Your task to perform on an android device: change the clock display to analog Image 0: 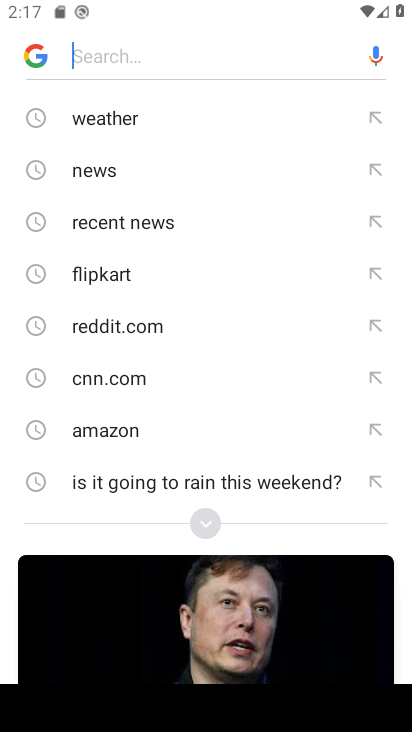
Step 0: drag from (216, 576) to (384, 6)
Your task to perform on an android device: change the clock display to analog Image 1: 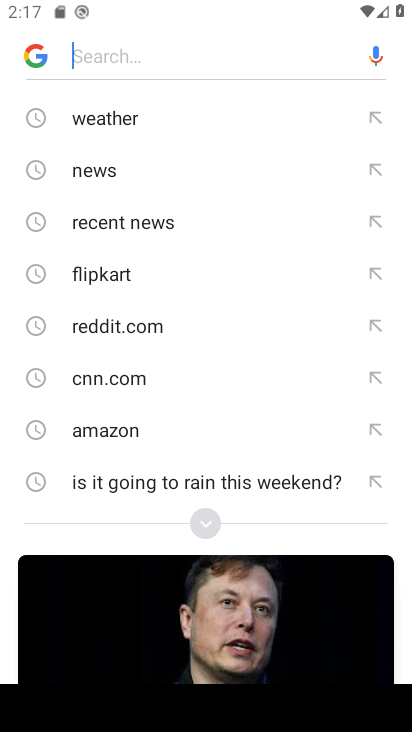
Step 1: press home button
Your task to perform on an android device: change the clock display to analog Image 2: 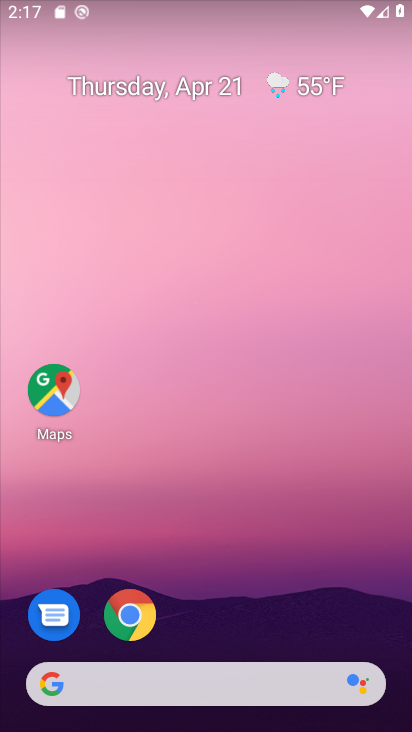
Step 2: click (206, 374)
Your task to perform on an android device: change the clock display to analog Image 3: 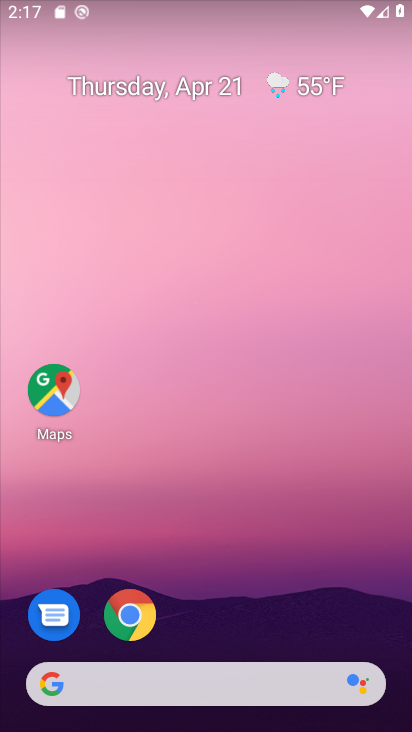
Step 3: drag from (201, 512) to (271, 100)
Your task to perform on an android device: change the clock display to analog Image 4: 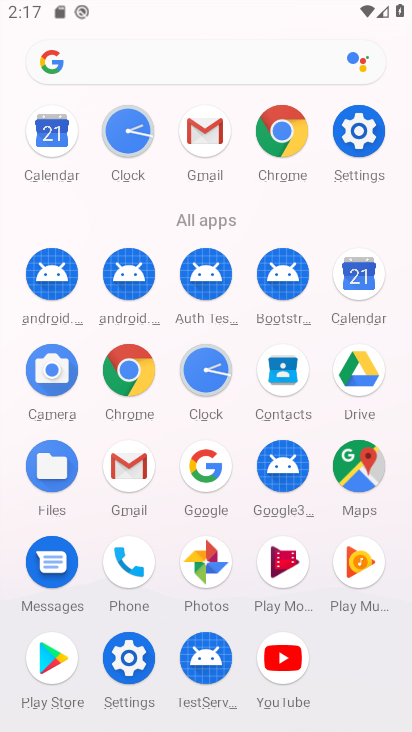
Step 4: click (390, 71)
Your task to perform on an android device: change the clock display to analog Image 5: 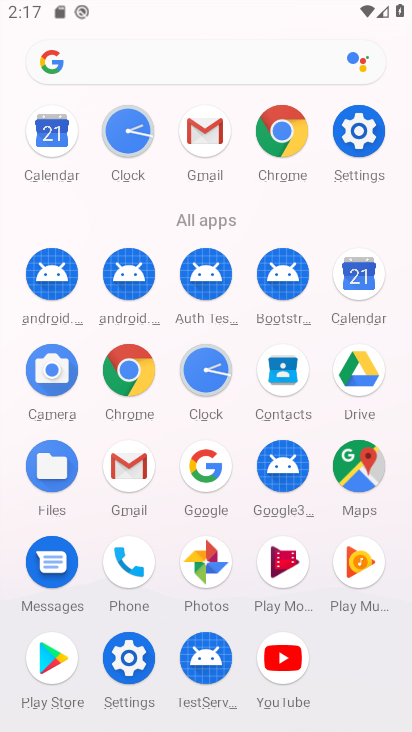
Step 5: click (203, 370)
Your task to perform on an android device: change the clock display to analog Image 6: 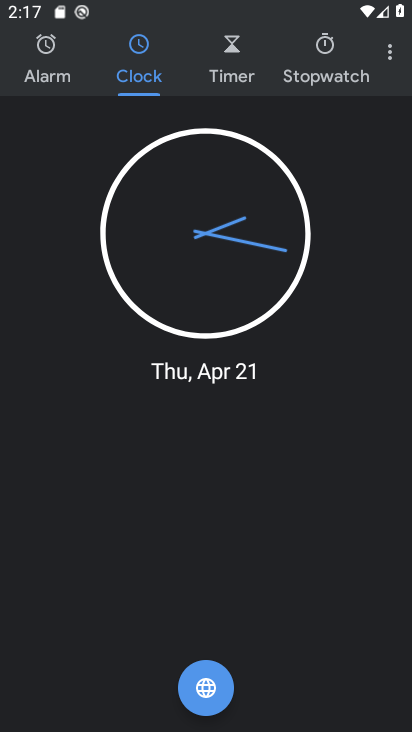
Step 6: click (286, 105)
Your task to perform on an android device: change the clock display to analog Image 7: 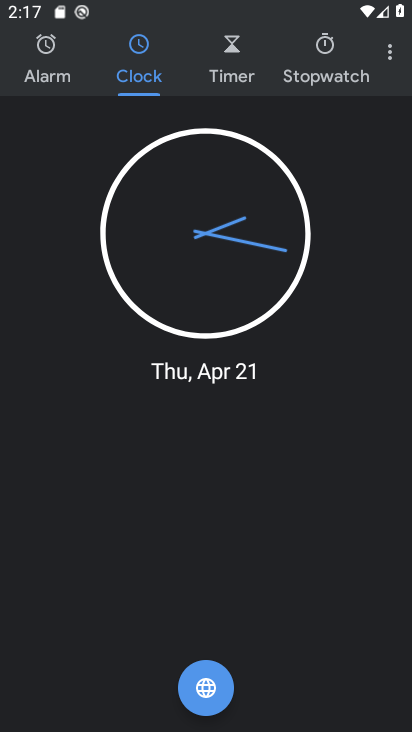
Step 7: click (387, 68)
Your task to perform on an android device: change the clock display to analog Image 8: 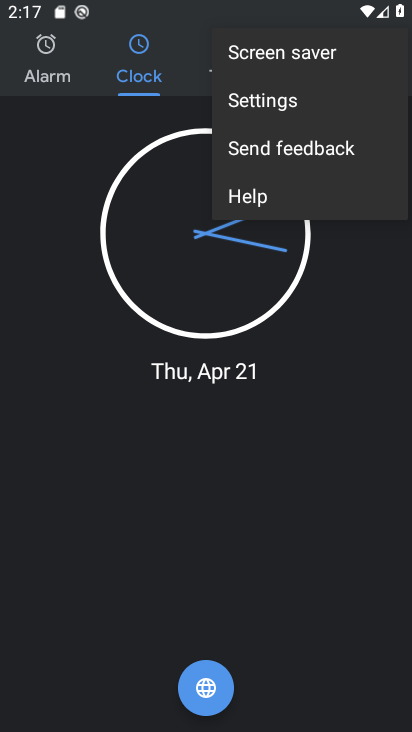
Step 8: click (151, 174)
Your task to perform on an android device: change the clock display to analog Image 9: 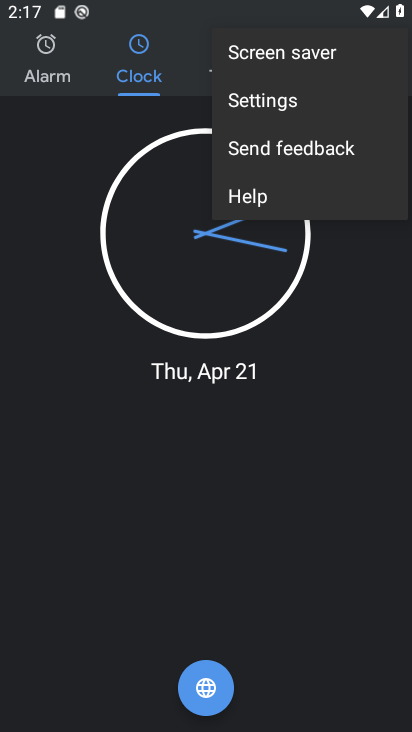
Step 9: click (269, 104)
Your task to perform on an android device: change the clock display to analog Image 10: 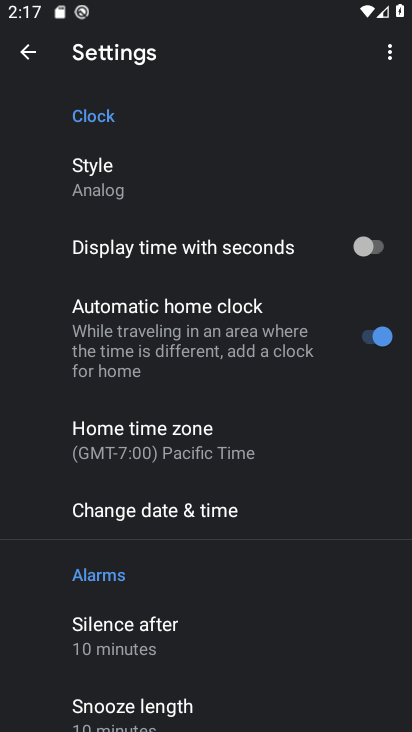
Step 10: click (148, 212)
Your task to perform on an android device: change the clock display to analog Image 11: 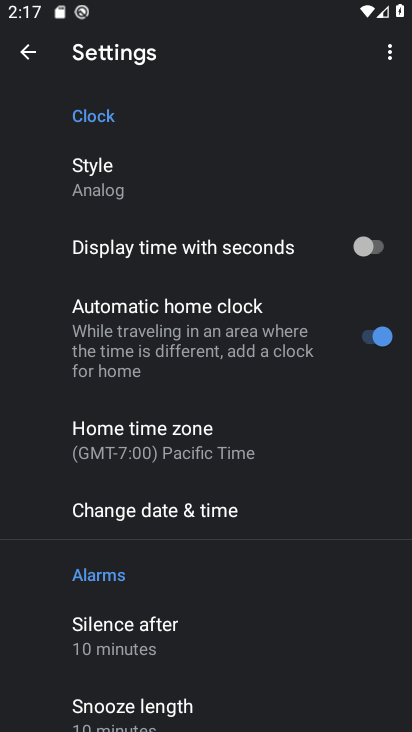
Step 11: task complete
Your task to perform on an android device: change the clock display to analog Image 12: 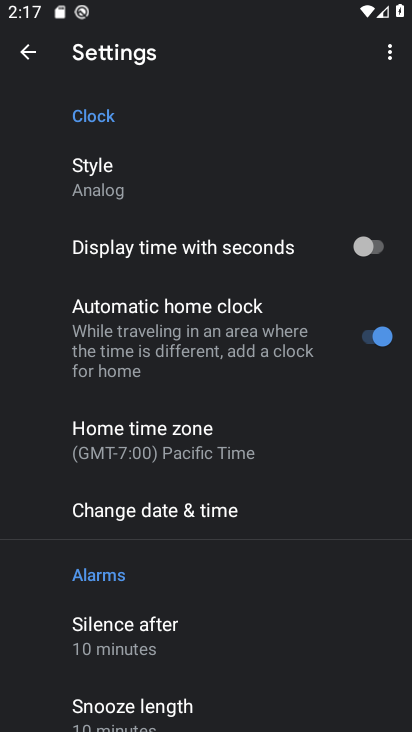
Step 12: task complete